Your task to perform on an android device: toggle priority inbox in the gmail app Image 0: 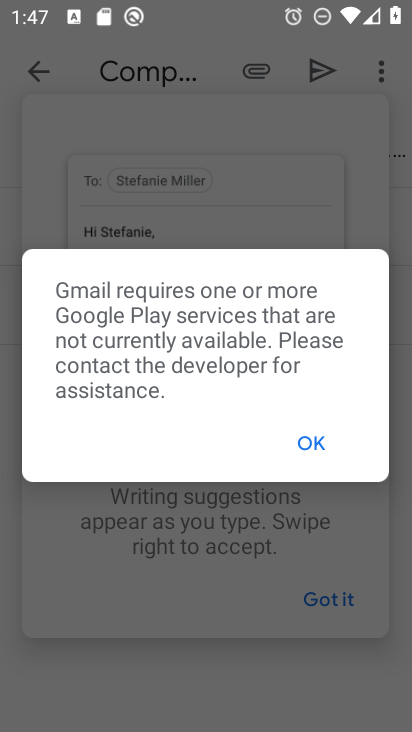
Step 0: press home button
Your task to perform on an android device: toggle priority inbox in the gmail app Image 1: 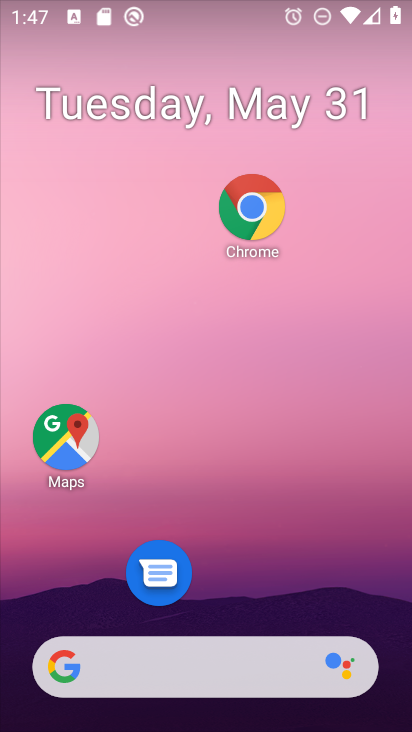
Step 1: drag from (228, 225) to (316, 15)
Your task to perform on an android device: toggle priority inbox in the gmail app Image 2: 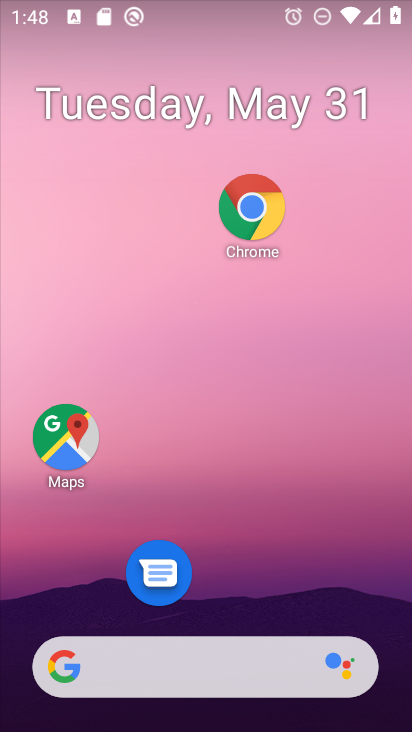
Step 2: drag from (192, 537) to (265, 46)
Your task to perform on an android device: toggle priority inbox in the gmail app Image 3: 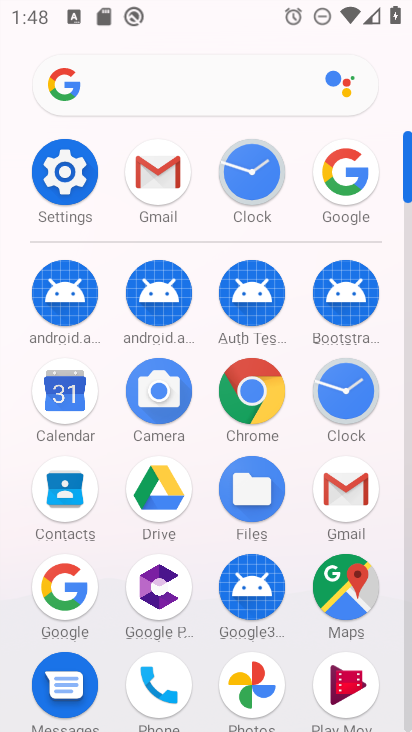
Step 3: click (345, 498)
Your task to perform on an android device: toggle priority inbox in the gmail app Image 4: 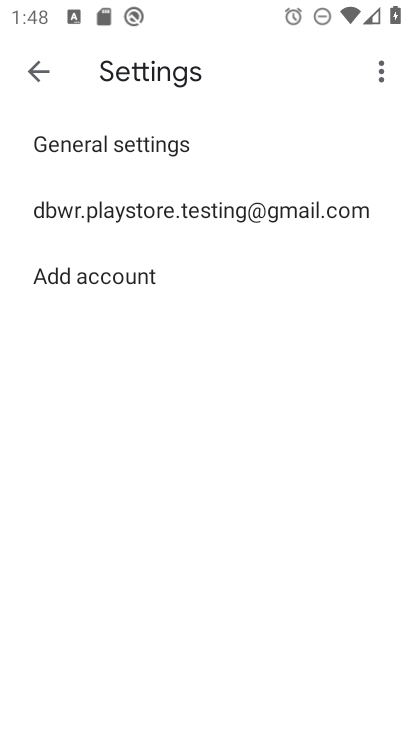
Step 4: click (107, 217)
Your task to perform on an android device: toggle priority inbox in the gmail app Image 5: 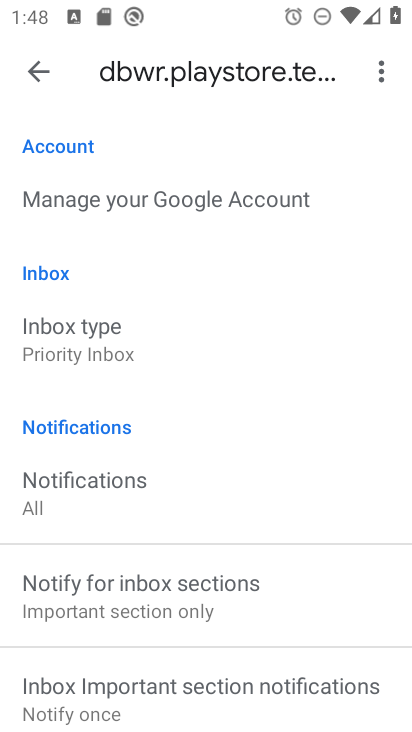
Step 5: click (191, 349)
Your task to perform on an android device: toggle priority inbox in the gmail app Image 6: 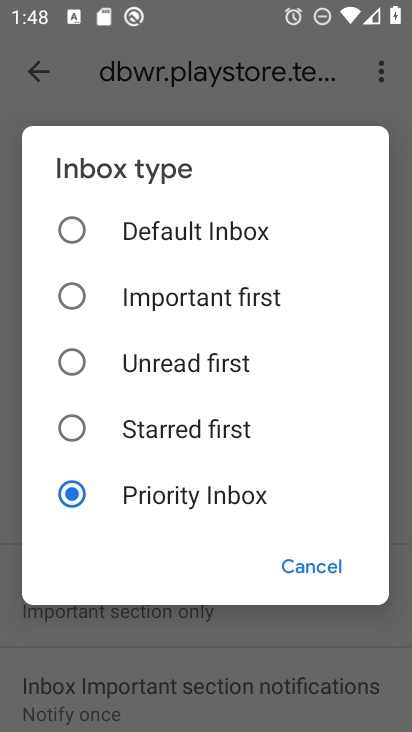
Step 6: click (201, 225)
Your task to perform on an android device: toggle priority inbox in the gmail app Image 7: 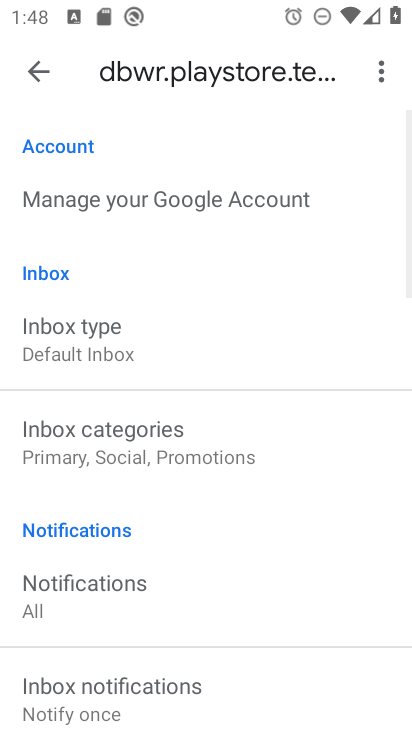
Step 7: task complete